Your task to perform on an android device: change timer sound Image 0: 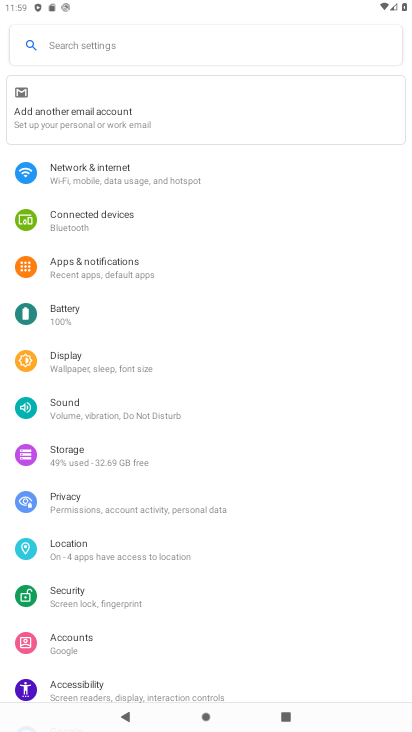
Step 0: press home button
Your task to perform on an android device: change timer sound Image 1: 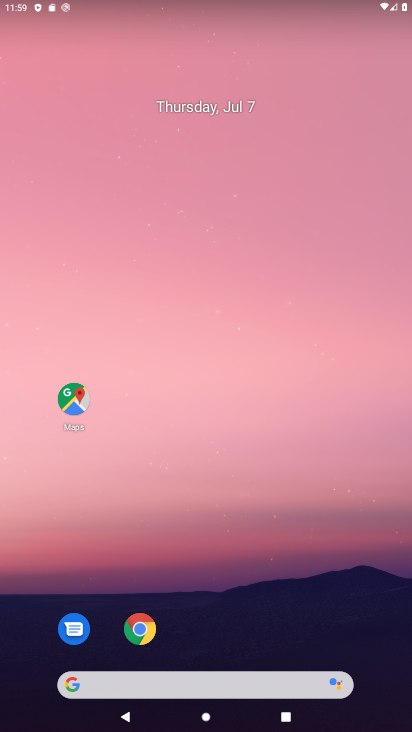
Step 1: drag from (322, 614) to (300, 255)
Your task to perform on an android device: change timer sound Image 2: 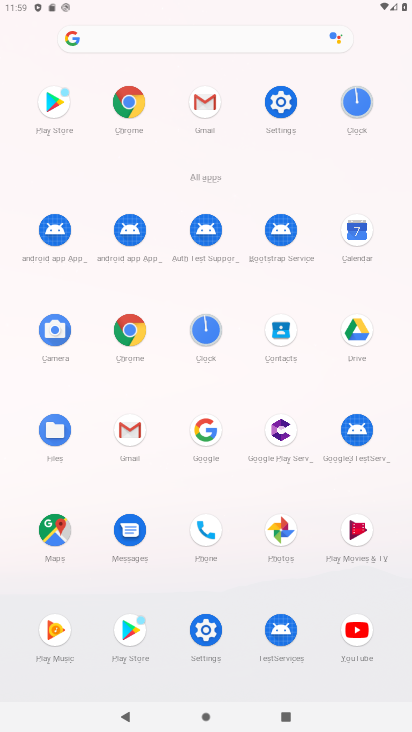
Step 2: click (208, 341)
Your task to perform on an android device: change timer sound Image 3: 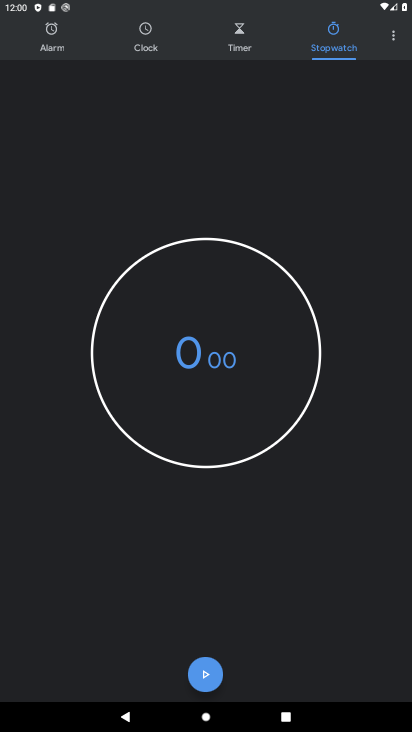
Step 3: click (398, 43)
Your task to perform on an android device: change timer sound Image 4: 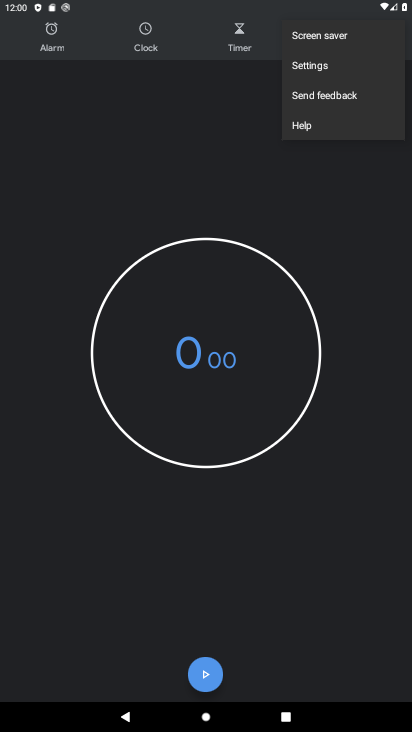
Step 4: click (328, 69)
Your task to perform on an android device: change timer sound Image 5: 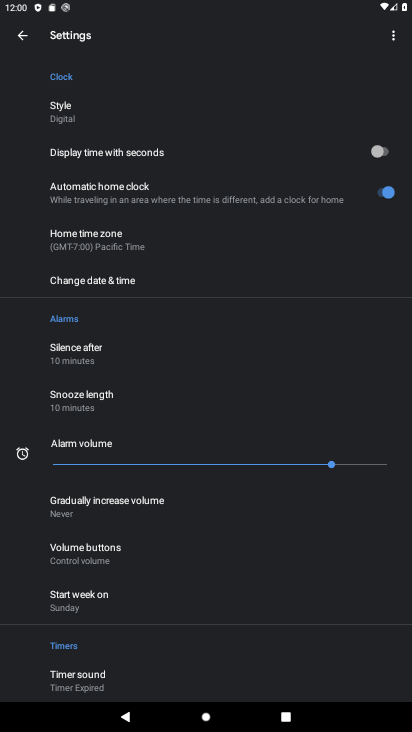
Step 5: click (128, 667)
Your task to perform on an android device: change timer sound Image 6: 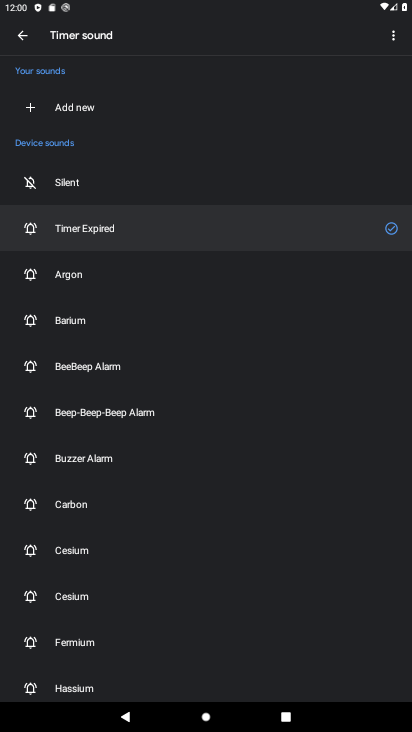
Step 6: click (91, 268)
Your task to perform on an android device: change timer sound Image 7: 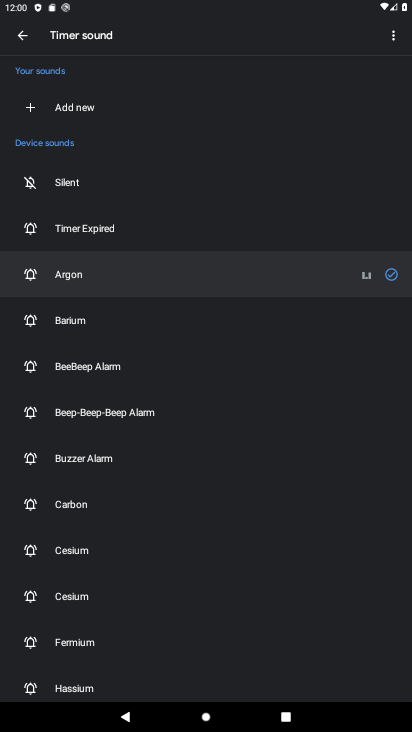
Step 7: task complete